Your task to perform on an android device: turn on sleep mode Image 0: 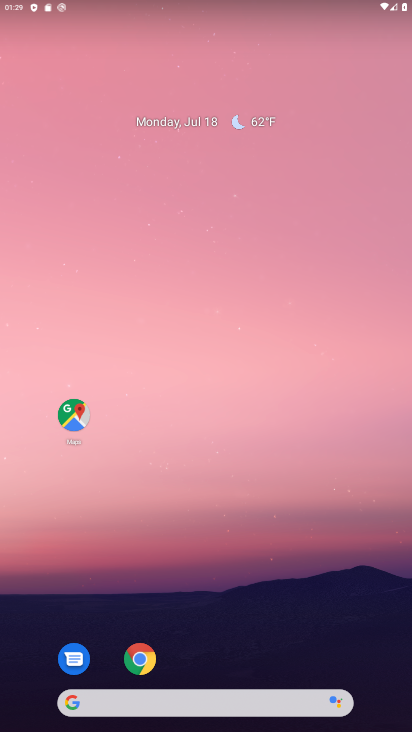
Step 0: drag from (299, 588) to (252, 85)
Your task to perform on an android device: turn on sleep mode Image 1: 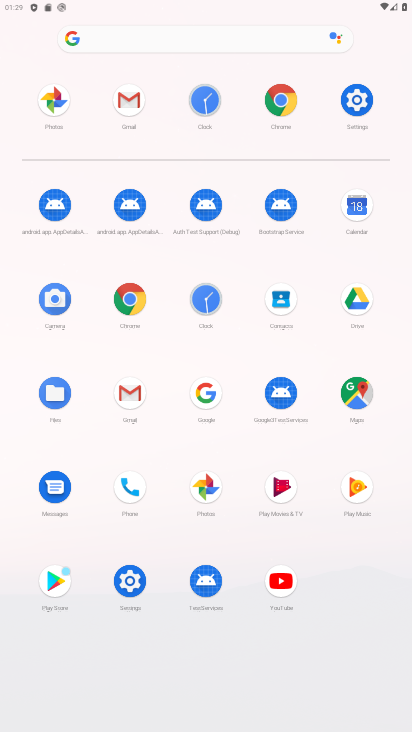
Step 1: click (364, 100)
Your task to perform on an android device: turn on sleep mode Image 2: 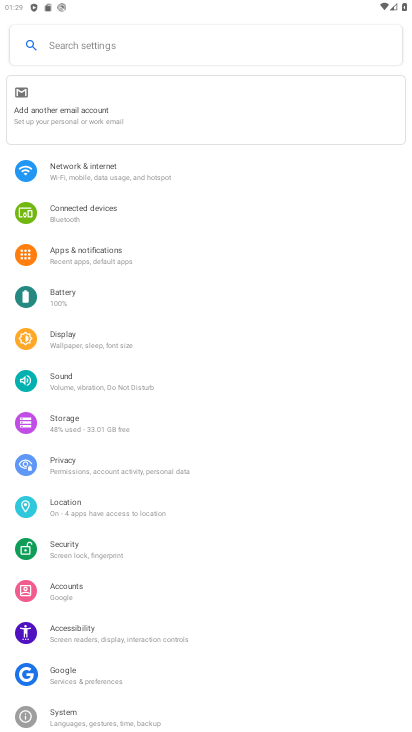
Step 2: click (104, 338)
Your task to perform on an android device: turn on sleep mode Image 3: 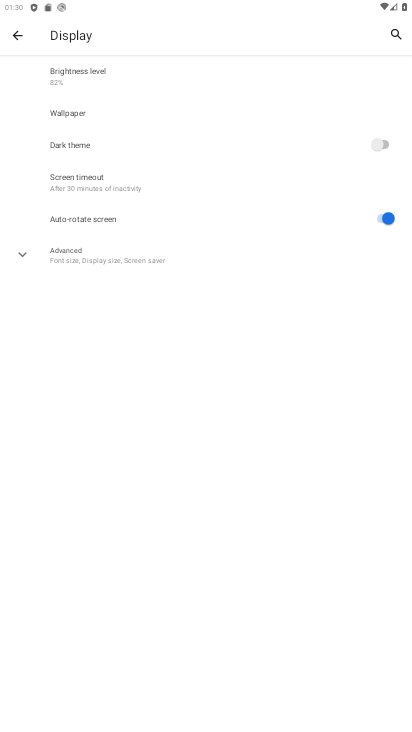
Step 3: click (95, 181)
Your task to perform on an android device: turn on sleep mode Image 4: 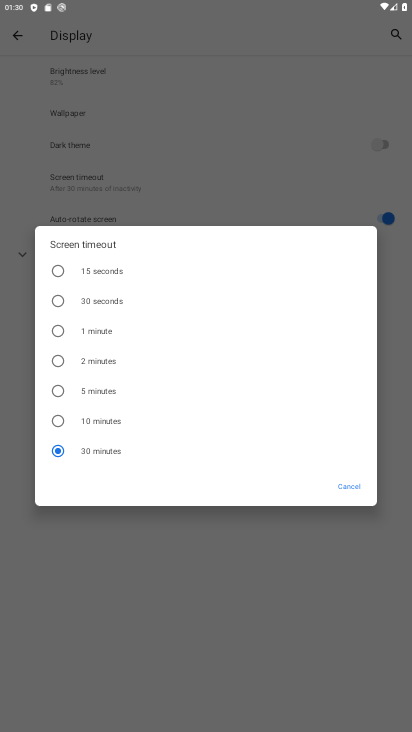
Step 4: task complete